Your task to perform on an android device: Do I have any events today? Image 0: 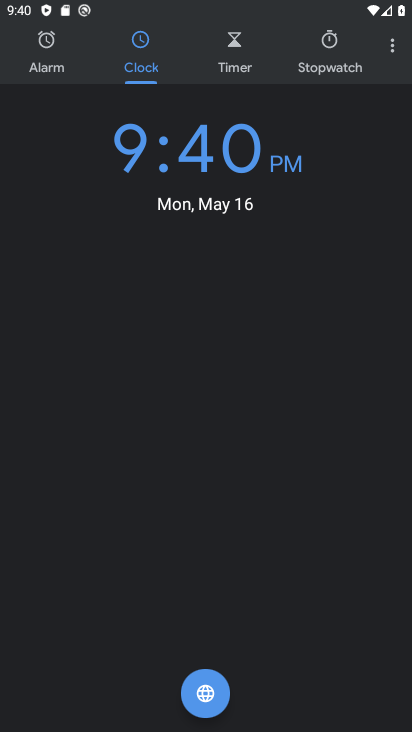
Step 0: press home button
Your task to perform on an android device: Do I have any events today? Image 1: 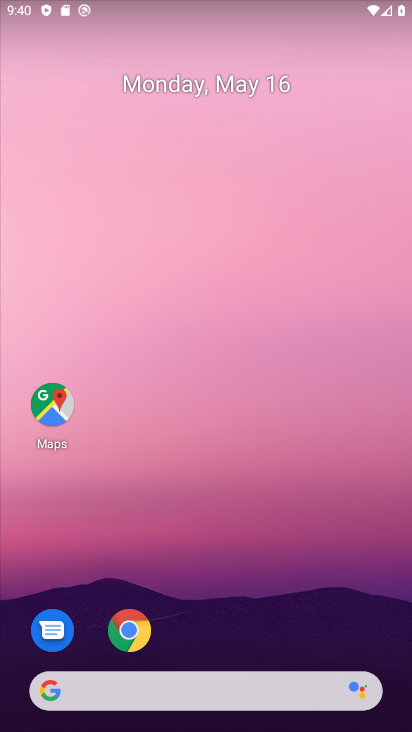
Step 1: drag from (193, 557) to (203, 77)
Your task to perform on an android device: Do I have any events today? Image 2: 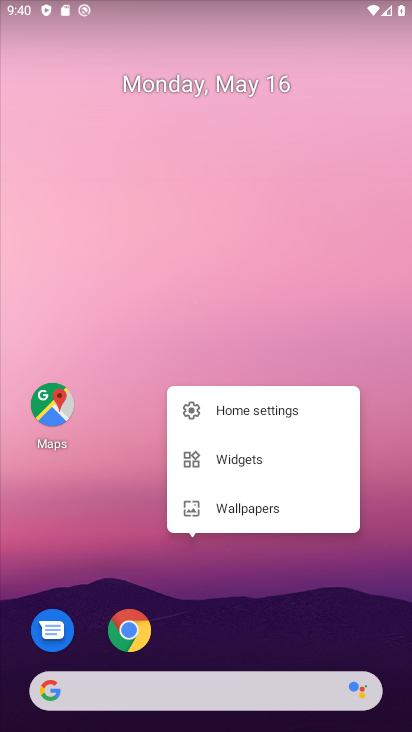
Step 2: drag from (109, 523) to (124, 81)
Your task to perform on an android device: Do I have any events today? Image 3: 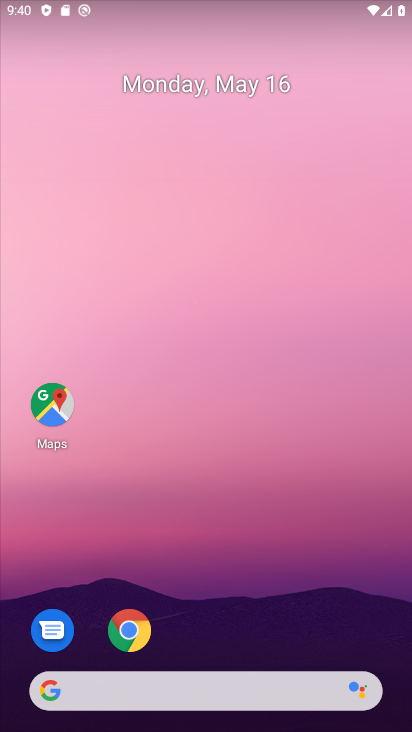
Step 3: drag from (234, 544) to (220, 32)
Your task to perform on an android device: Do I have any events today? Image 4: 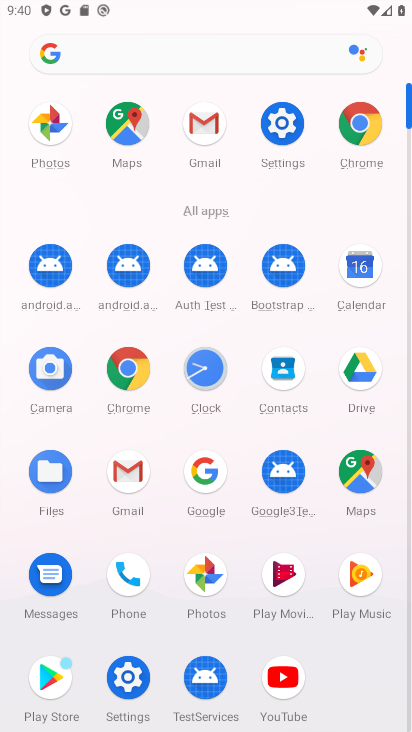
Step 4: click (350, 265)
Your task to perform on an android device: Do I have any events today? Image 5: 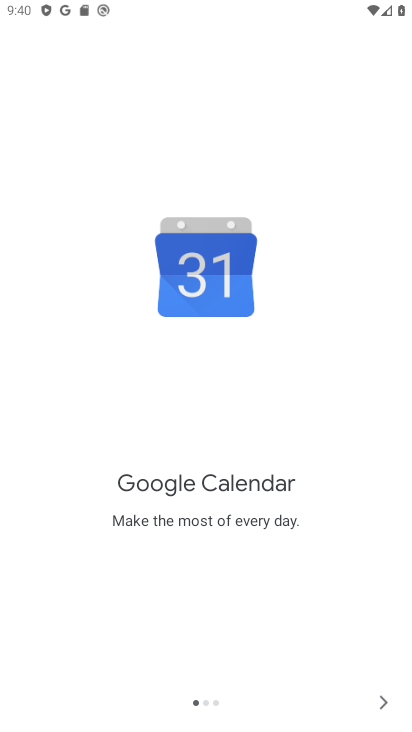
Step 5: click (380, 693)
Your task to perform on an android device: Do I have any events today? Image 6: 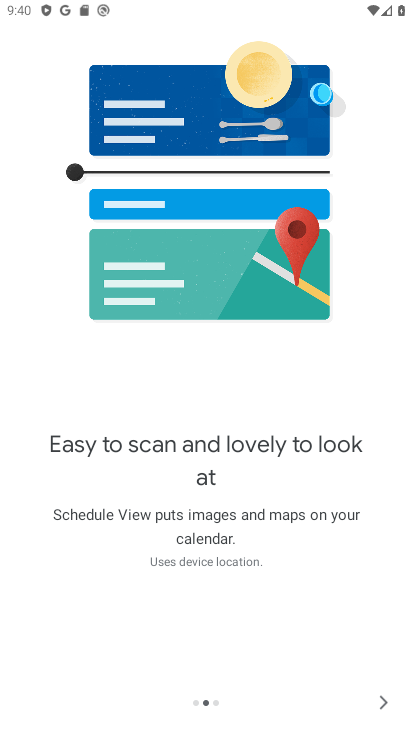
Step 6: click (380, 693)
Your task to perform on an android device: Do I have any events today? Image 7: 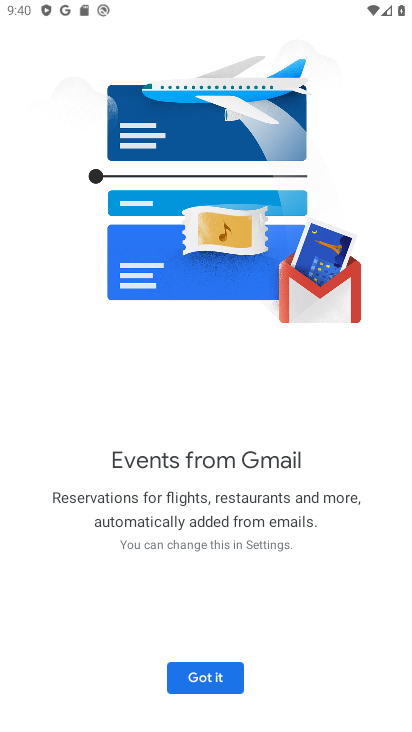
Step 7: click (231, 672)
Your task to perform on an android device: Do I have any events today? Image 8: 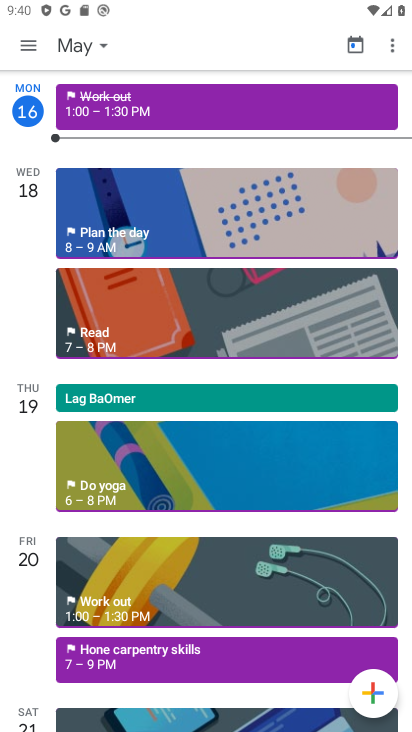
Step 8: click (30, 110)
Your task to perform on an android device: Do I have any events today? Image 9: 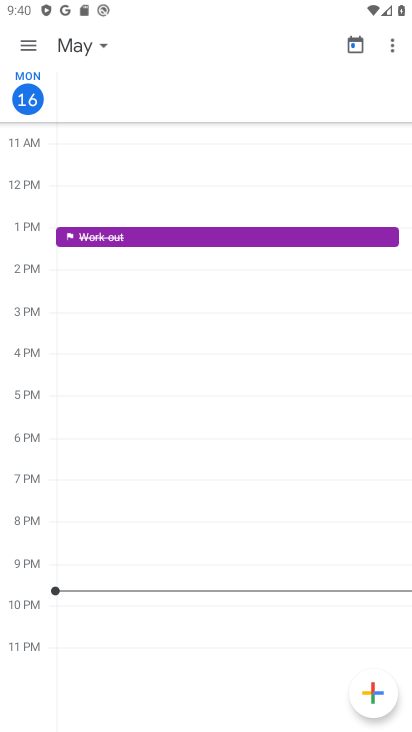
Step 9: task complete